Your task to perform on an android device: turn on bluetooth scan Image 0: 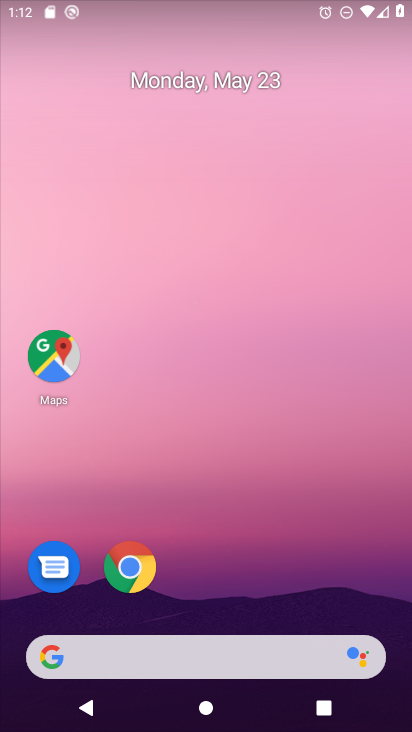
Step 0: drag from (177, 589) to (175, 162)
Your task to perform on an android device: turn on bluetooth scan Image 1: 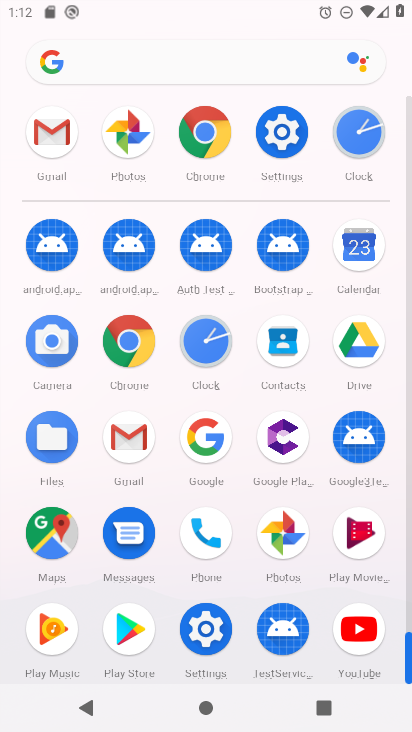
Step 1: click (276, 142)
Your task to perform on an android device: turn on bluetooth scan Image 2: 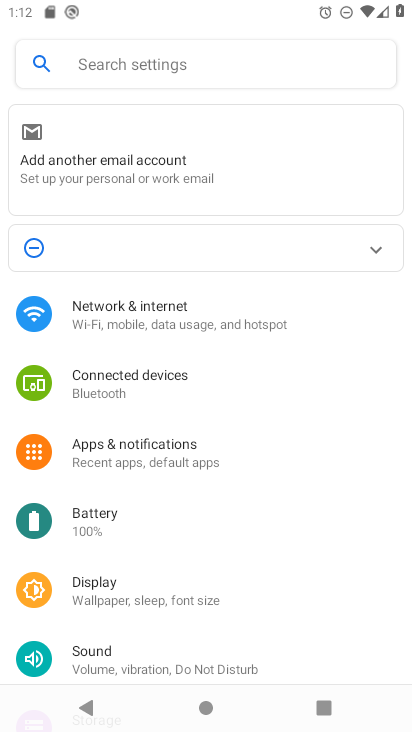
Step 2: drag from (101, 603) to (208, 121)
Your task to perform on an android device: turn on bluetooth scan Image 3: 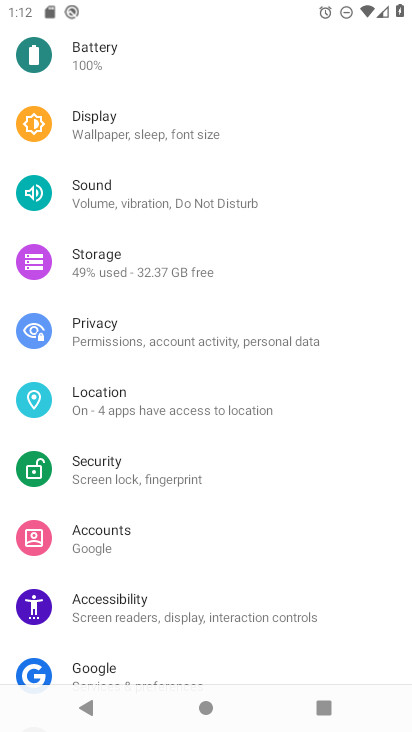
Step 3: click (145, 411)
Your task to perform on an android device: turn on bluetooth scan Image 4: 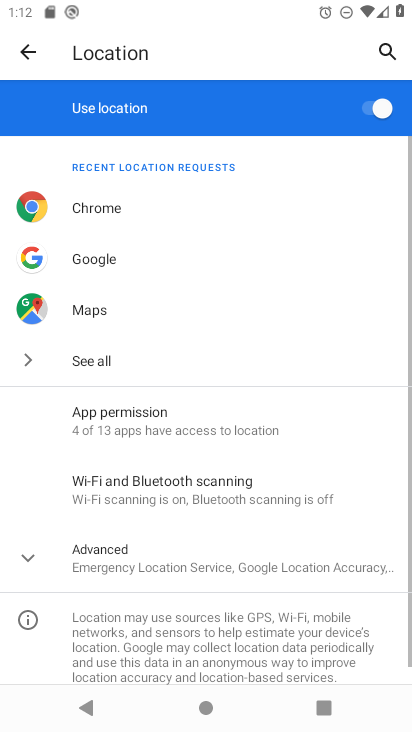
Step 4: click (188, 478)
Your task to perform on an android device: turn on bluetooth scan Image 5: 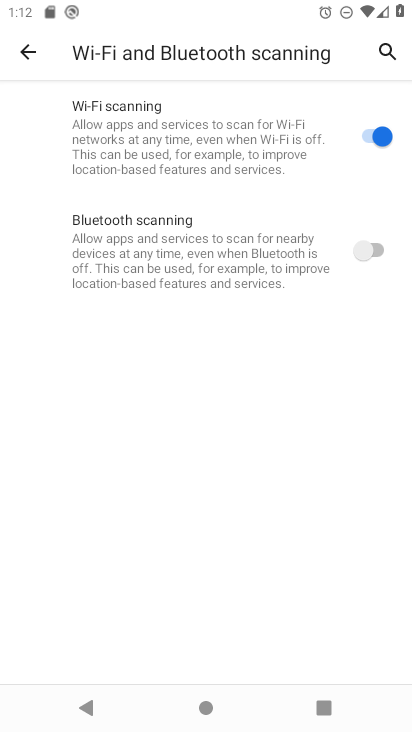
Step 5: click (380, 256)
Your task to perform on an android device: turn on bluetooth scan Image 6: 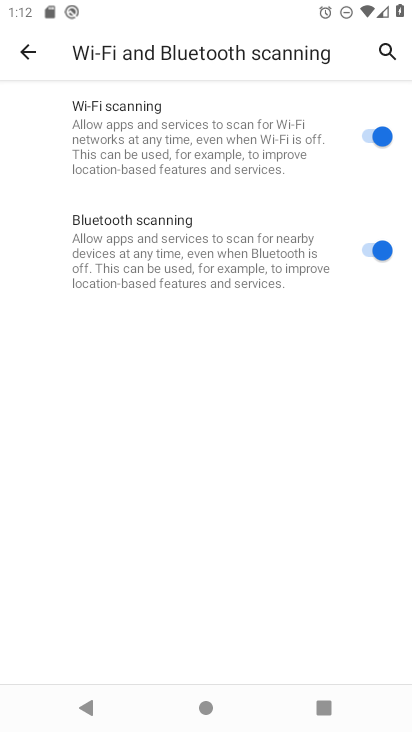
Step 6: task complete